Your task to perform on an android device: open chrome and create a bookmark for the current page Image 0: 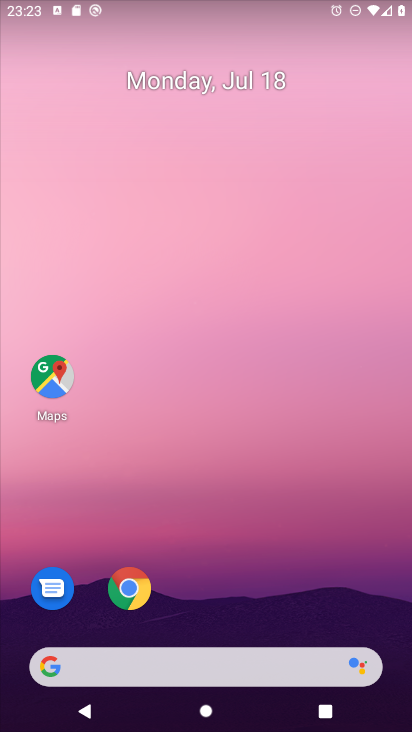
Step 0: click (129, 590)
Your task to perform on an android device: open chrome and create a bookmark for the current page Image 1: 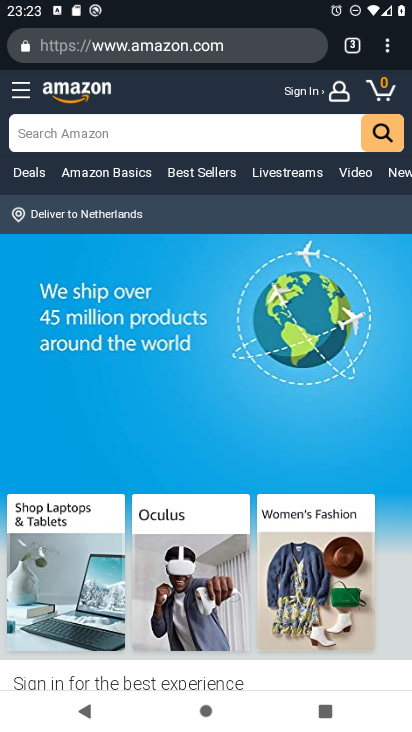
Step 1: click (386, 52)
Your task to perform on an android device: open chrome and create a bookmark for the current page Image 2: 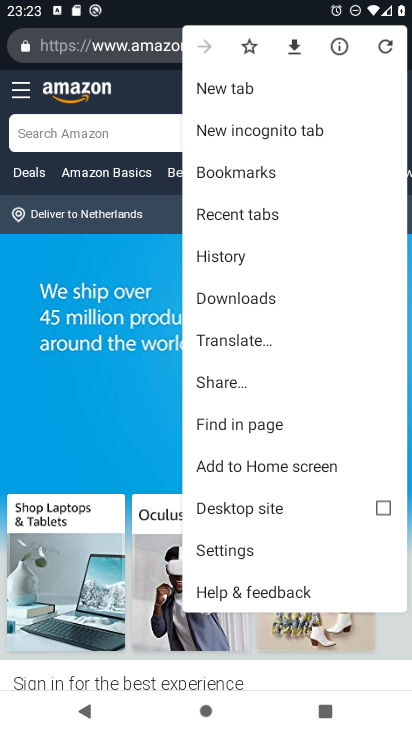
Step 2: click (249, 43)
Your task to perform on an android device: open chrome and create a bookmark for the current page Image 3: 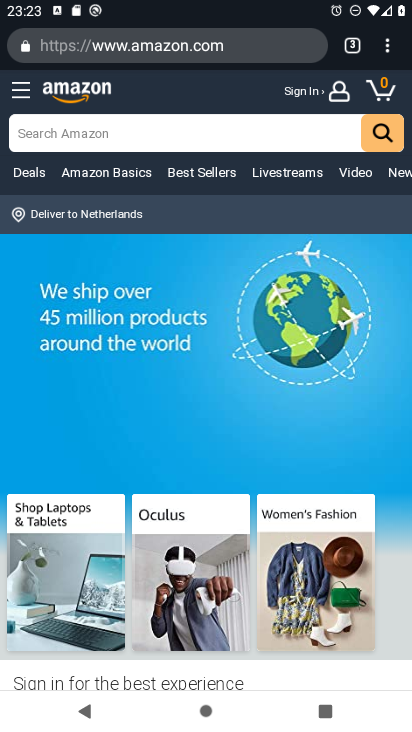
Step 3: task complete